Your task to perform on an android device: show emergency info Image 0: 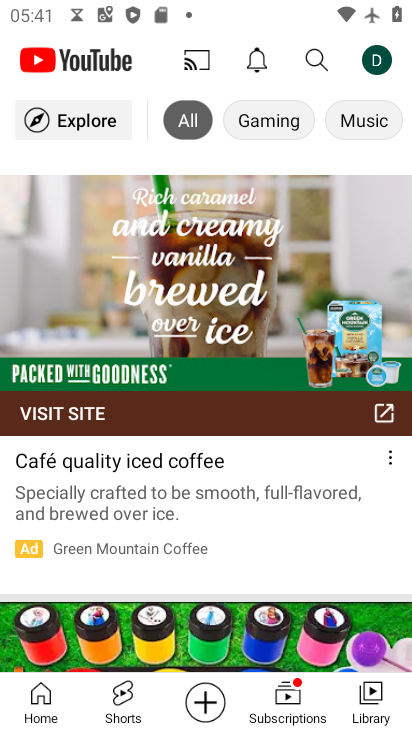
Step 0: press home button
Your task to perform on an android device: show emergency info Image 1: 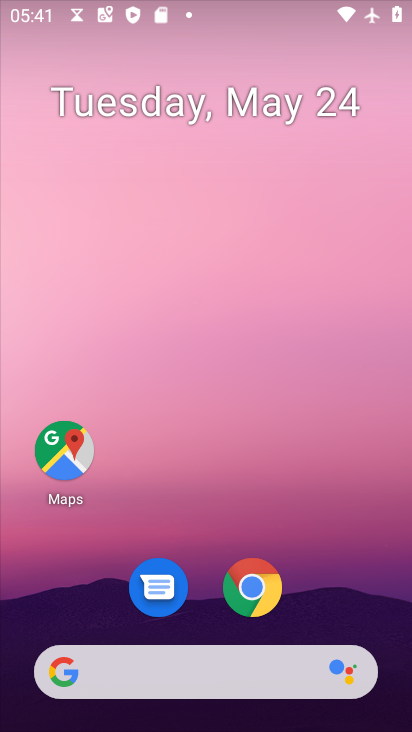
Step 1: drag from (306, 345) to (205, 0)
Your task to perform on an android device: show emergency info Image 2: 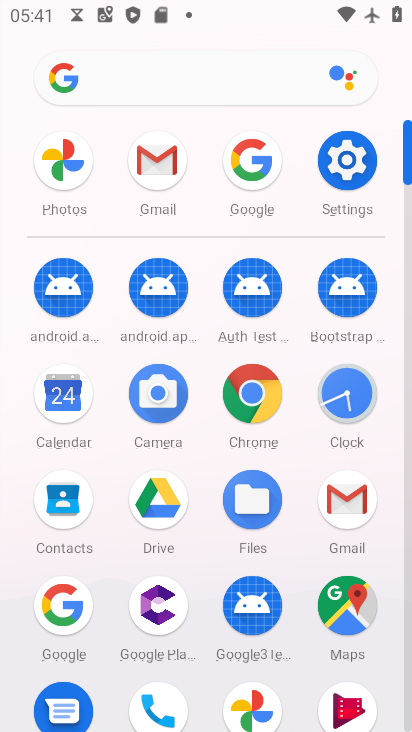
Step 2: click (335, 169)
Your task to perform on an android device: show emergency info Image 3: 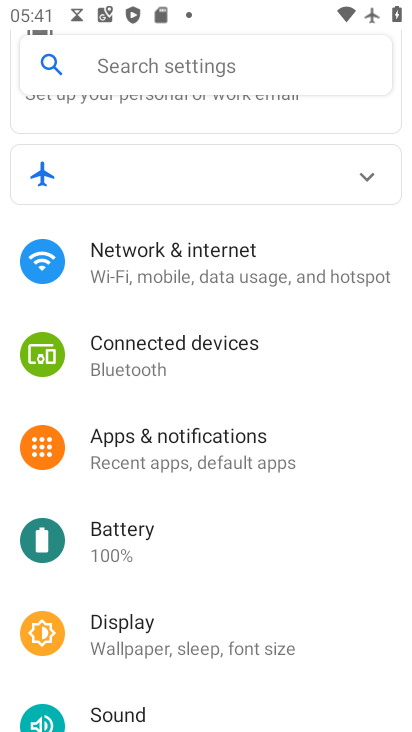
Step 3: drag from (292, 560) to (190, 70)
Your task to perform on an android device: show emergency info Image 4: 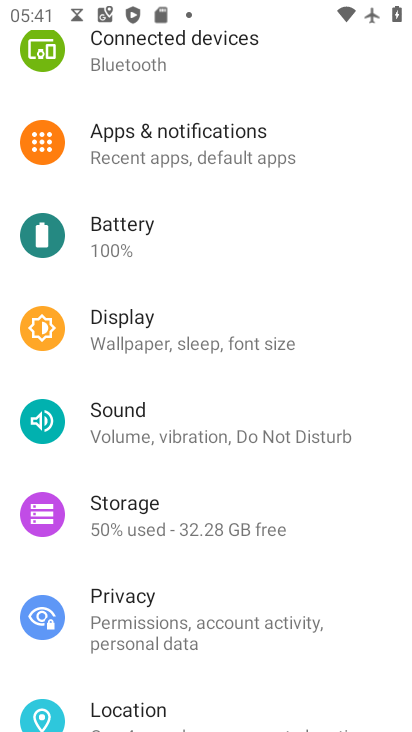
Step 4: drag from (259, 560) to (239, 79)
Your task to perform on an android device: show emergency info Image 5: 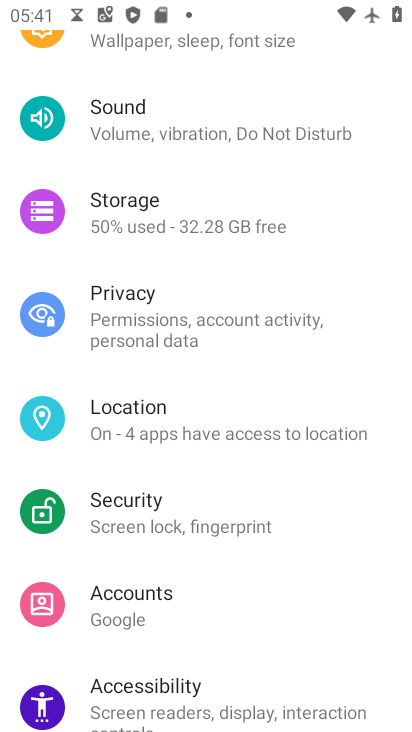
Step 5: drag from (278, 617) to (225, 11)
Your task to perform on an android device: show emergency info Image 6: 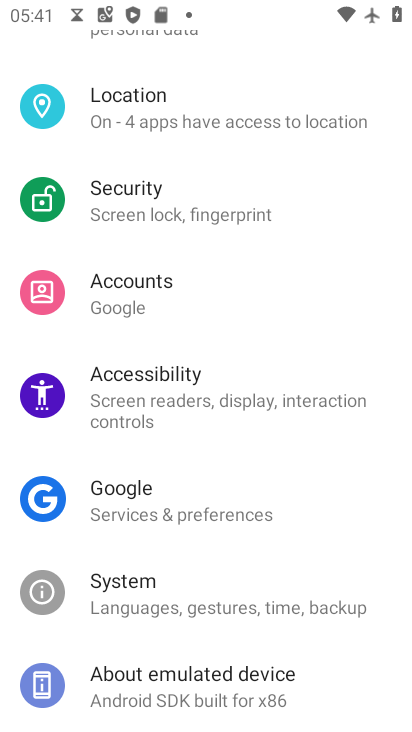
Step 6: click (239, 678)
Your task to perform on an android device: show emergency info Image 7: 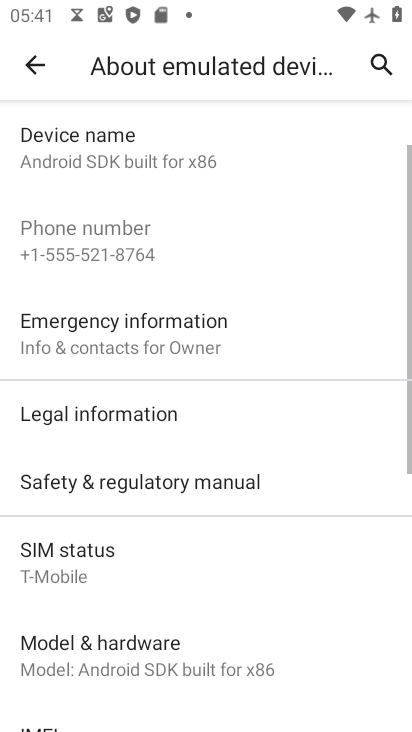
Step 7: click (206, 338)
Your task to perform on an android device: show emergency info Image 8: 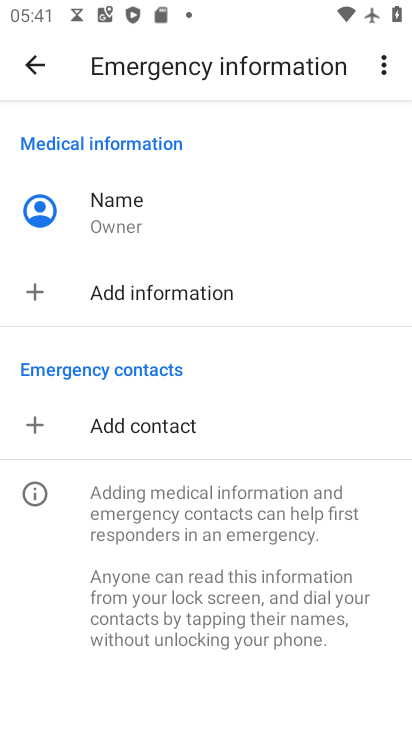
Step 8: task complete